Your task to perform on an android device: Open Google Chrome and open the bookmarks view Image 0: 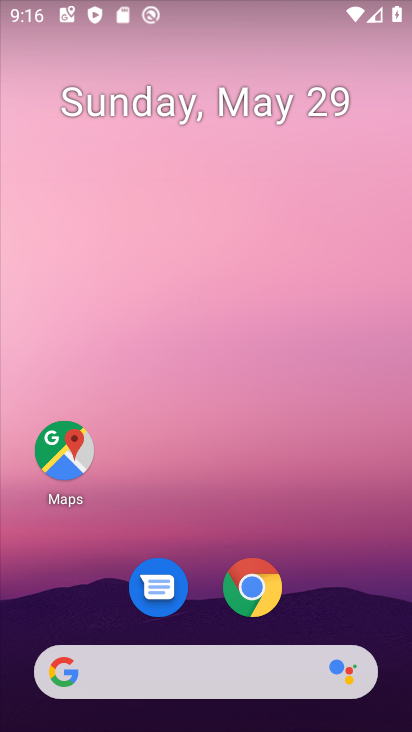
Step 0: click (260, 570)
Your task to perform on an android device: Open Google Chrome and open the bookmarks view Image 1: 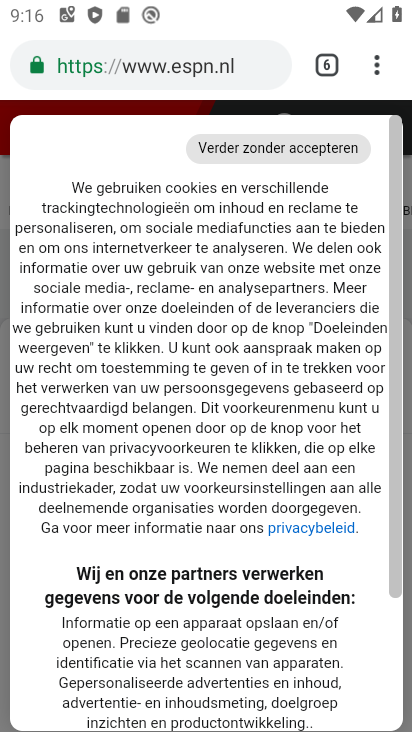
Step 1: drag from (373, 65) to (171, 252)
Your task to perform on an android device: Open Google Chrome and open the bookmarks view Image 2: 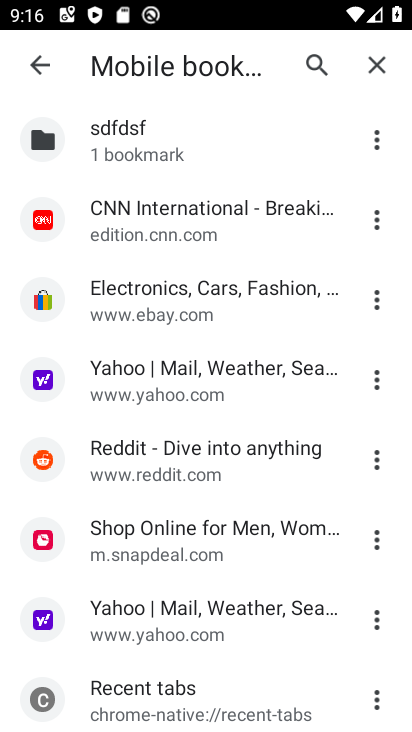
Step 2: click (230, 212)
Your task to perform on an android device: Open Google Chrome and open the bookmarks view Image 3: 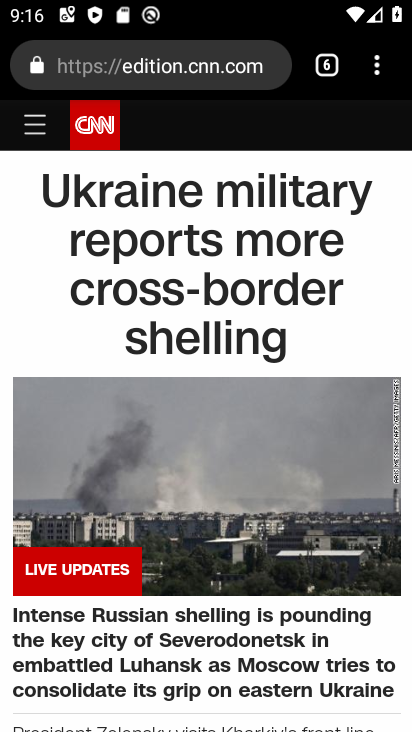
Step 3: task complete